Your task to perform on an android device: open sync settings in chrome Image 0: 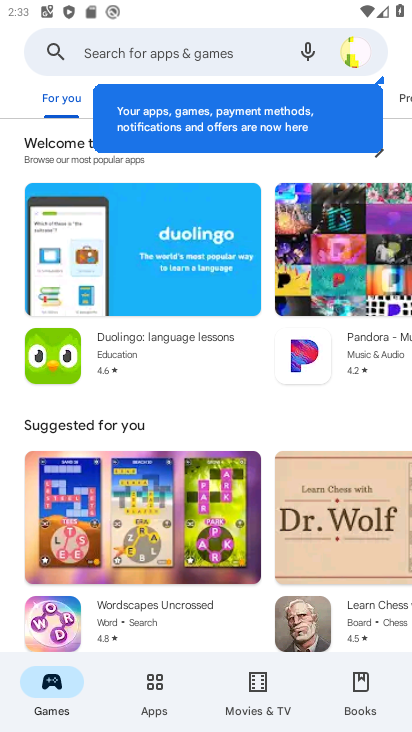
Step 0: press home button
Your task to perform on an android device: open sync settings in chrome Image 1: 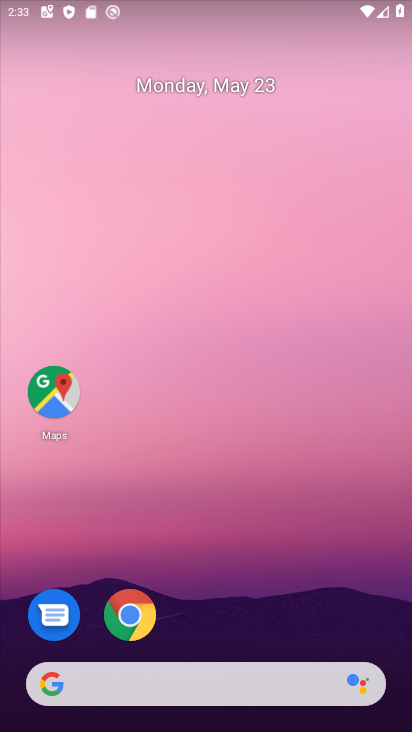
Step 1: click (132, 620)
Your task to perform on an android device: open sync settings in chrome Image 2: 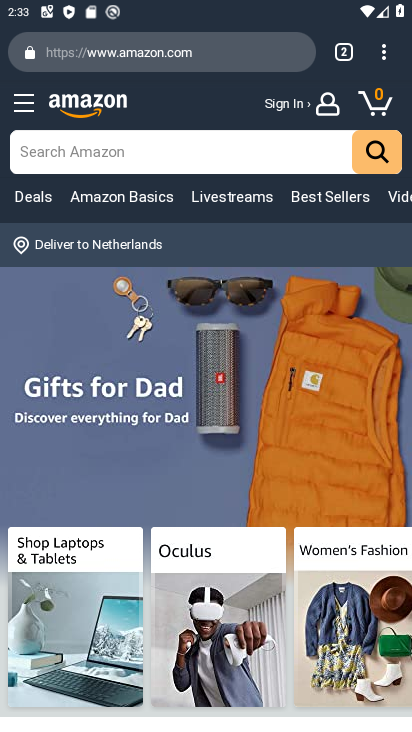
Step 2: click (384, 52)
Your task to perform on an android device: open sync settings in chrome Image 3: 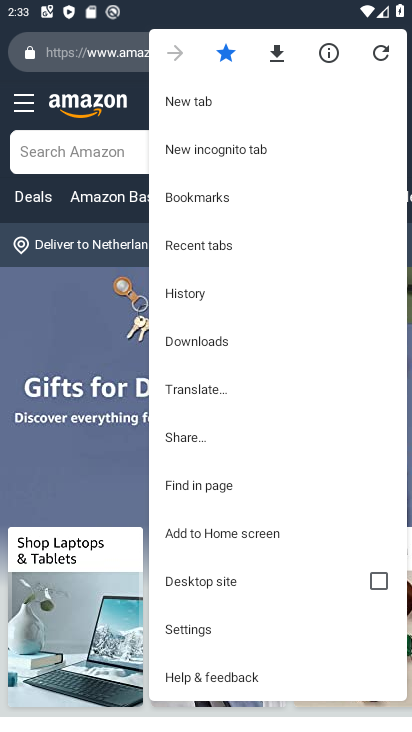
Step 3: click (191, 632)
Your task to perform on an android device: open sync settings in chrome Image 4: 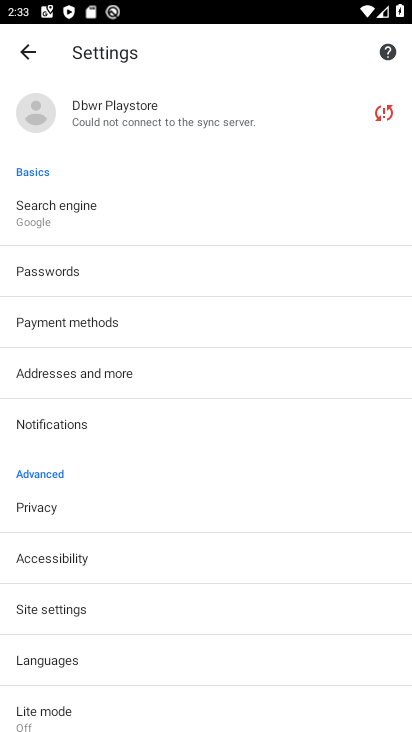
Step 4: click (125, 123)
Your task to perform on an android device: open sync settings in chrome Image 5: 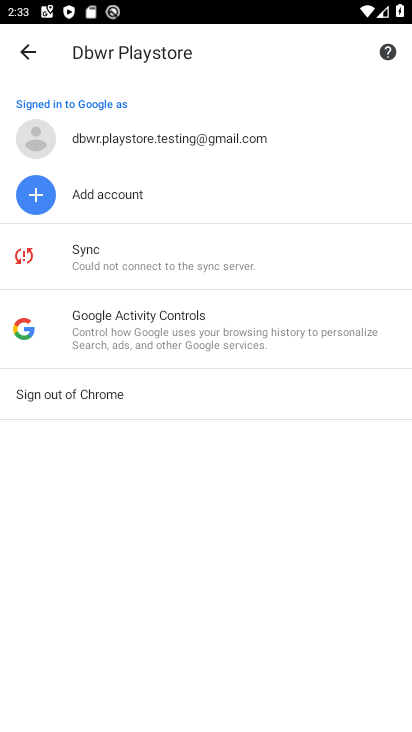
Step 5: click (126, 266)
Your task to perform on an android device: open sync settings in chrome Image 6: 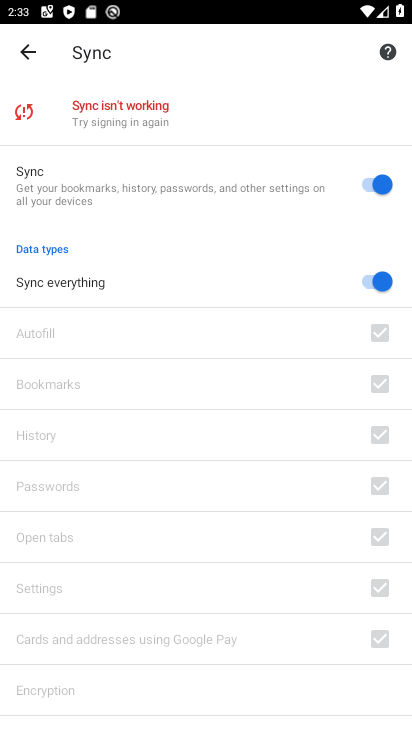
Step 6: task complete